Your task to perform on an android device: Go to CNN.com Image 0: 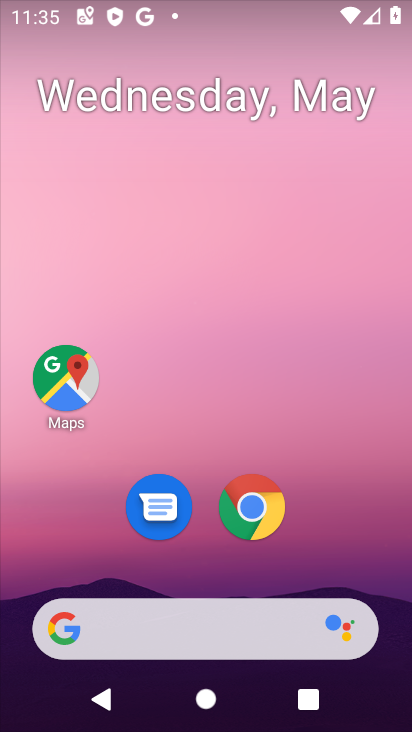
Step 0: press home button
Your task to perform on an android device: Go to CNN.com Image 1: 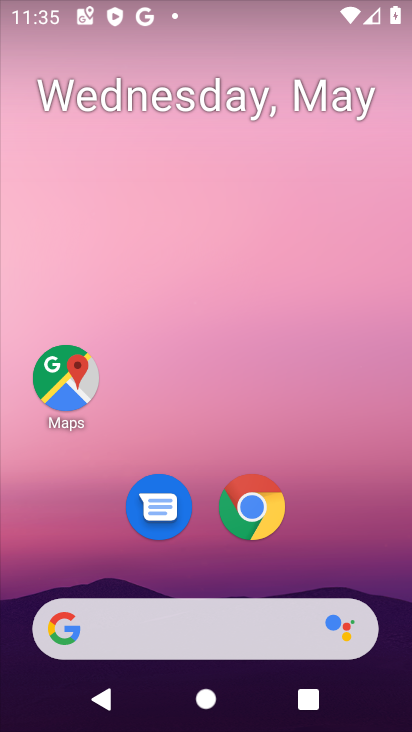
Step 1: click (256, 492)
Your task to perform on an android device: Go to CNN.com Image 2: 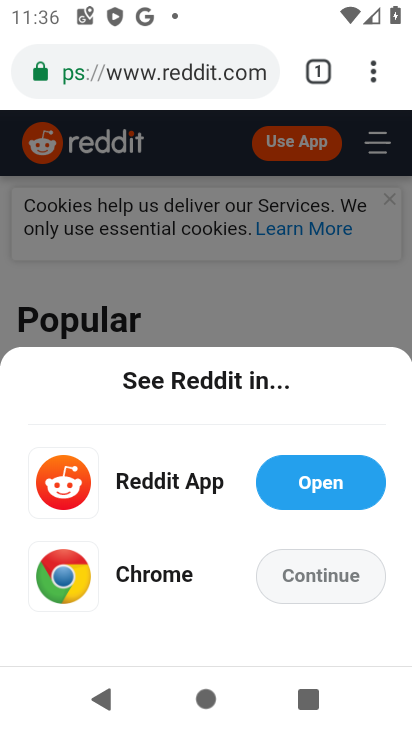
Step 2: click (190, 73)
Your task to perform on an android device: Go to CNN.com Image 3: 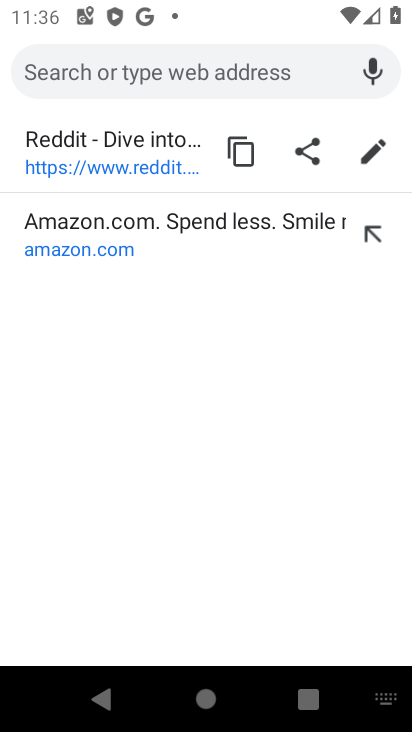
Step 3: click (216, 62)
Your task to perform on an android device: Go to CNN.com Image 4: 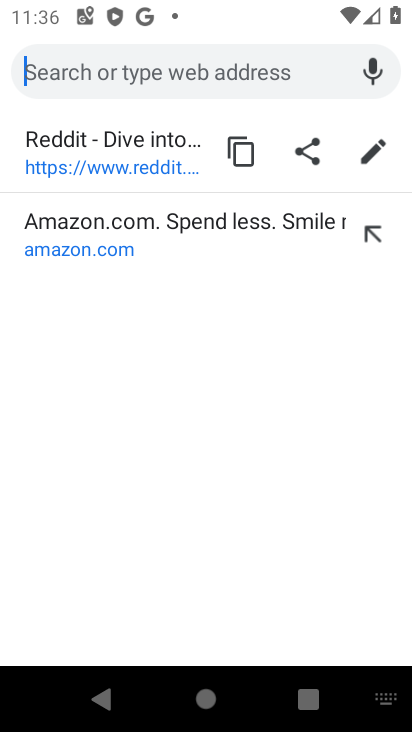
Step 4: type "CNN.com"
Your task to perform on an android device: Go to CNN.com Image 5: 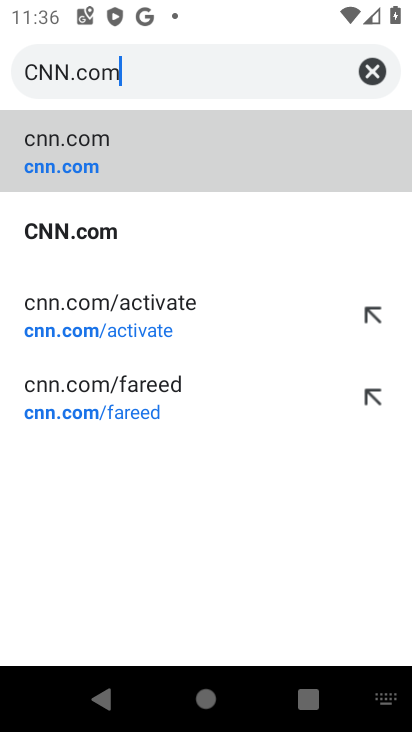
Step 5: click (92, 142)
Your task to perform on an android device: Go to CNN.com Image 6: 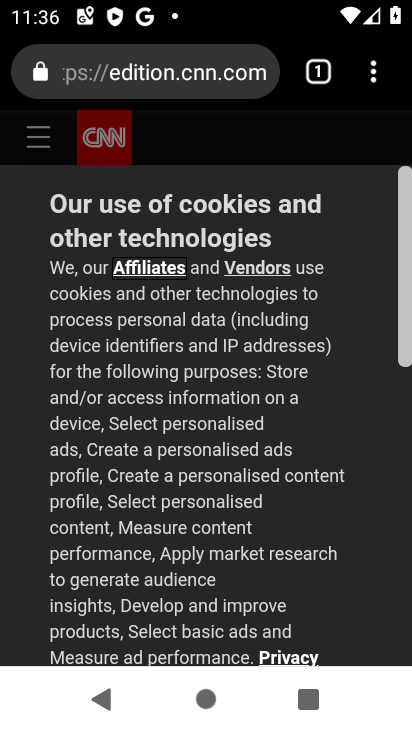
Step 6: task complete